Your task to perform on an android device: Do I have any events today? Image 0: 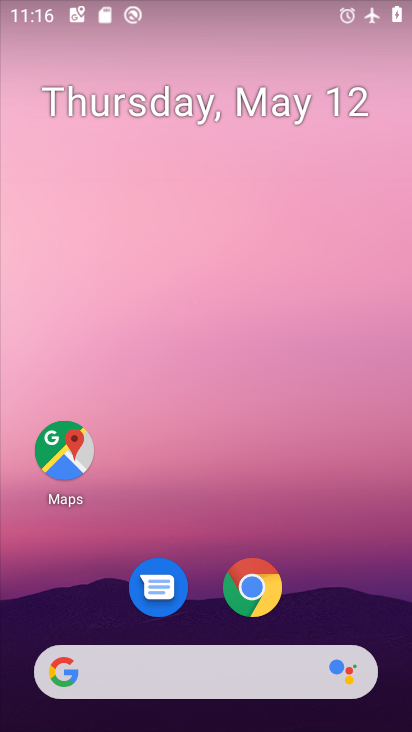
Step 0: drag from (364, 611) to (245, 56)
Your task to perform on an android device: Do I have any events today? Image 1: 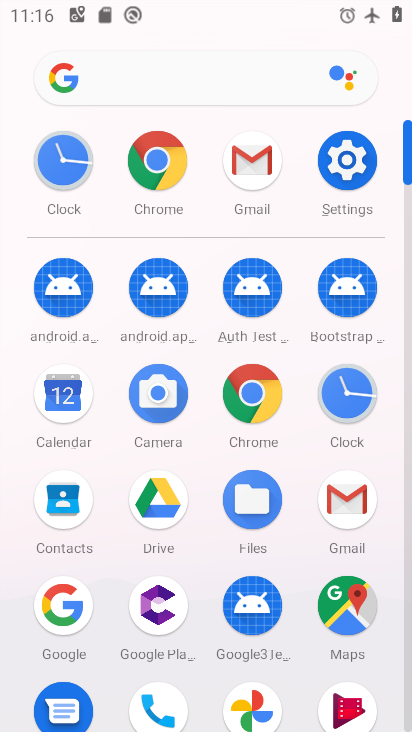
Step 1: click (55, 386)
Your task to perform on an android device: Do I have any events today? Image 2: 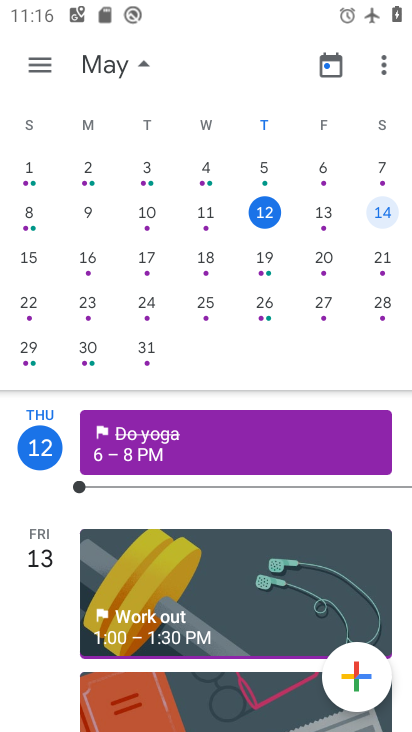
Step 2: click (32, 54)
Your task to perform on an android device: Do I have any events today? Image 3: 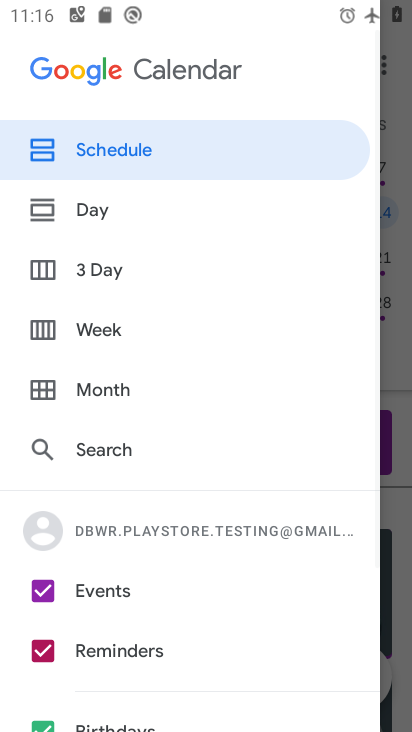
Step 3: click (125, 179)
Your task to perform on an android device: Do I have any events today? Image 4: 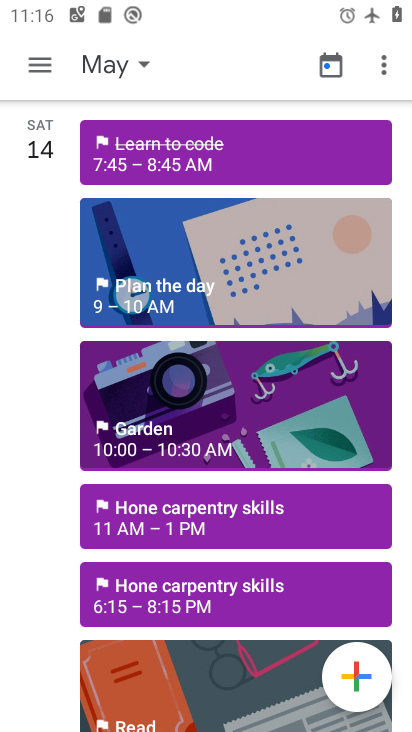
Step 4: task complete